Your task to perform on an android device: delete browsing data in the chrome app Image 0: 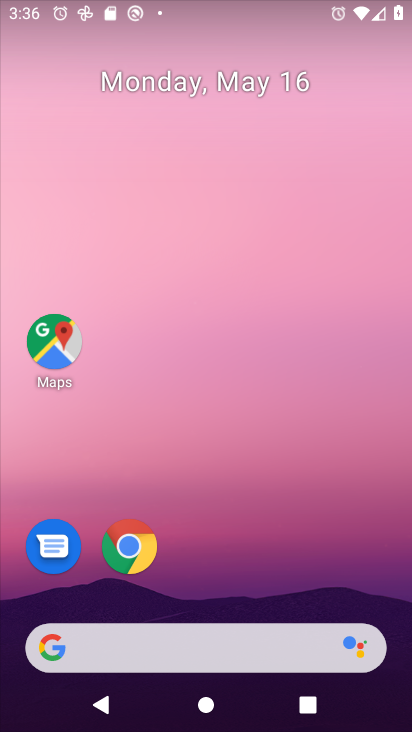
Step 0: drag from (374, 562) to (362, 197)
Your task to perform on an android device: delete browsing data in the chrome app Image 1: 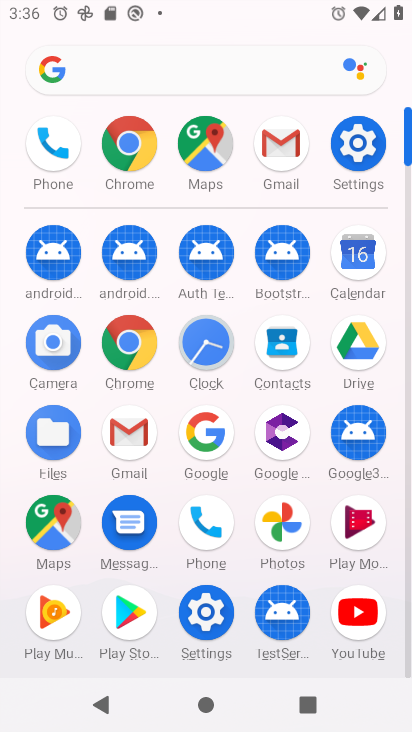
Step 1: click (144, 352)
Your task to perform on an android device: delete browsing data in the chrome app Image 2: 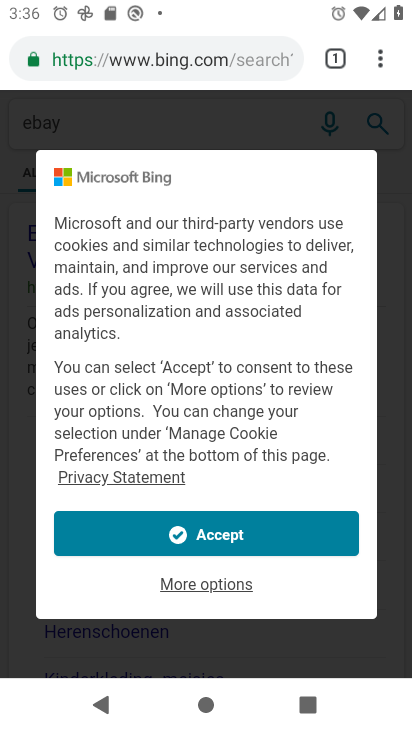
Step 2: click (381, 63)
Your task to perform on an android device: delete browsing data in the chrome app Image 3: 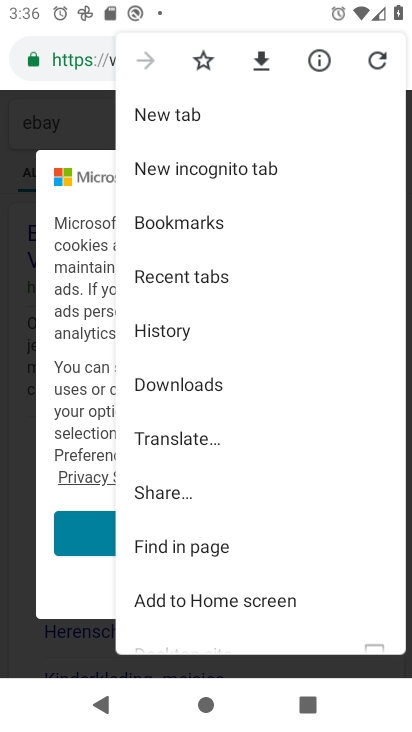
Step 3: drag from (308, 524) to (327, 368)
Your task to perform on an android device: delete browsing data in the chrome app Image 4: 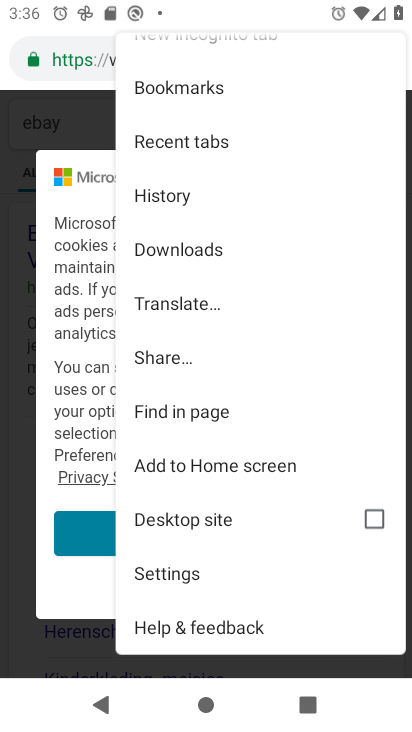
Step 4: drag from (284, 586) to (314, 400)
Your task to perform on an android device: delete browsing data in the chrome app Image 5: 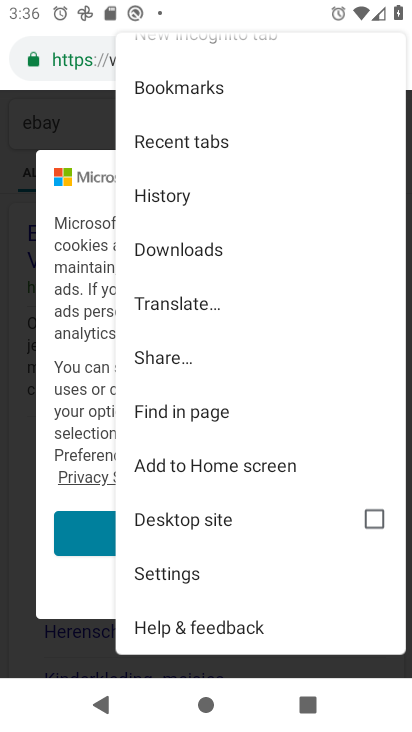
Step 5: click (182, 581)
Your task to perform on an android device: delete browsing data in the chrome app Image 6: 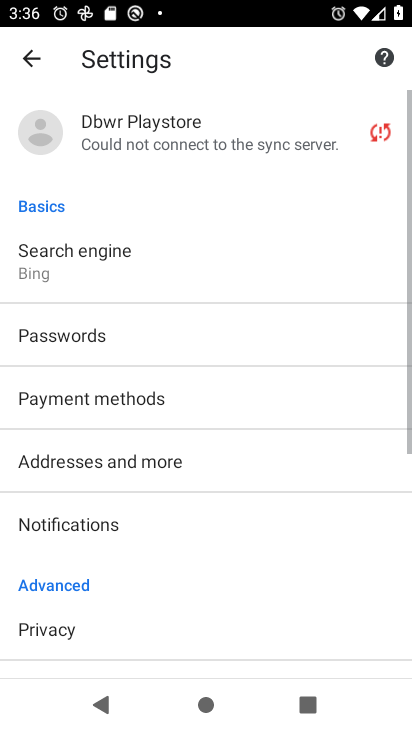
Step 6: drag from (290, 594) to (291, 453)
Your task to perform on an android device: delete browsing data in the chrome app Image 7: 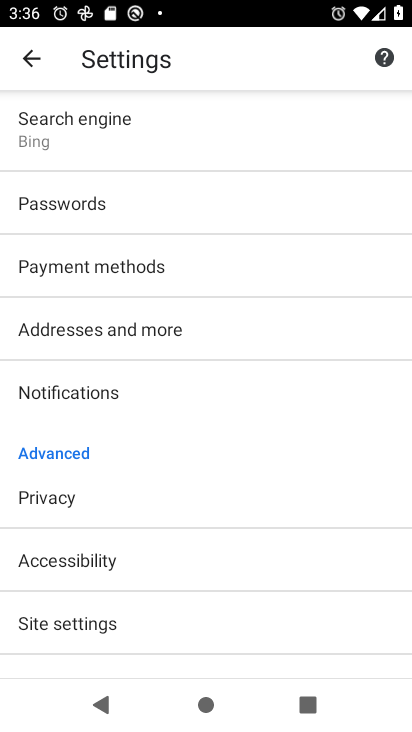
Step 7: drag from (280, 614) to (279, 448)
Your task to perform on an android device: delete browsing data in the chrome app Image 8: 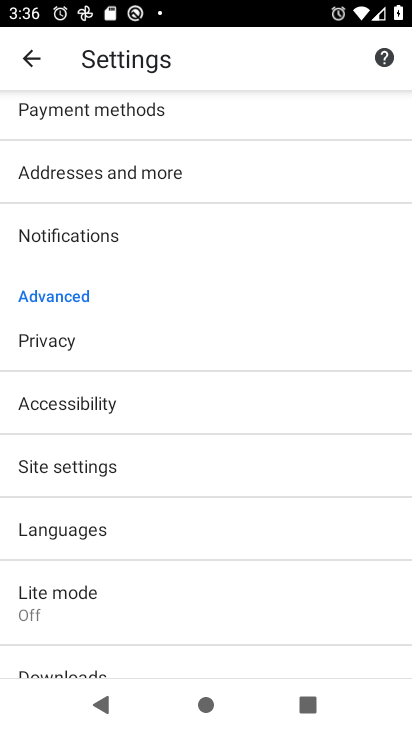
Step 8: drag from (272, 596) to (281, 409)
Your task to perform on an android device: delete browsing data in the chrome app Image 9: 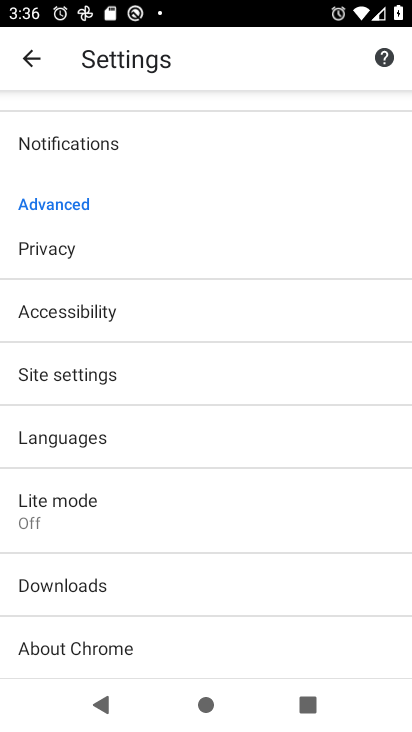
Step 9: drag from (267, 497) to (263, 411)
Your task to perform on an android device: delete browsing data in the chrome app Image 10: 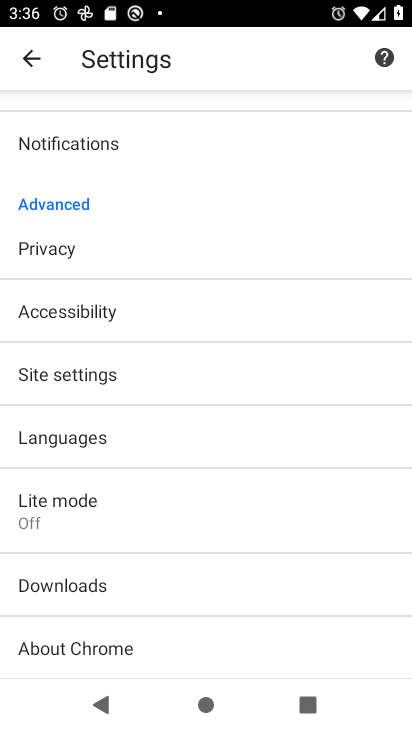
Step 10: drag from (290, 216) to (276, 382)
Your task to perform on an android device: delete browsing data in the chrome app Image 11: 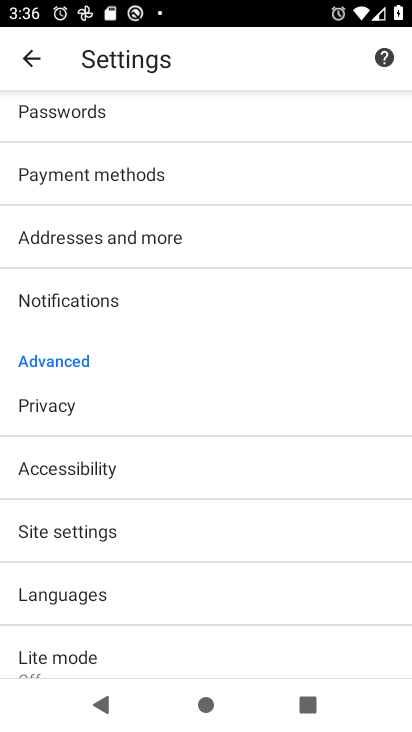
Step 11: click (174, 407)
Your task to perform on an android device: delete browsing data in the chrome app Image 12: 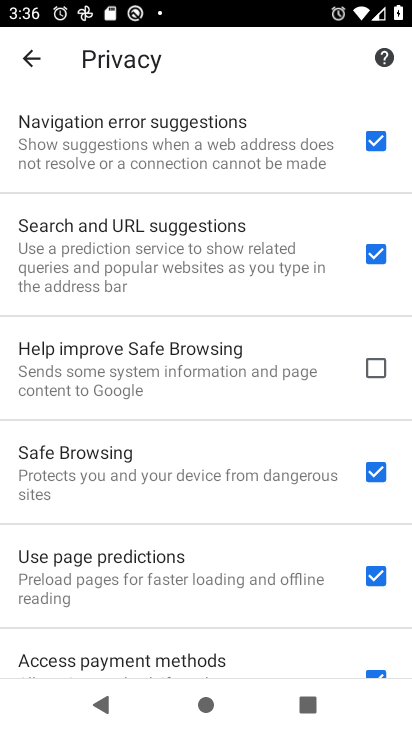
Step 12: drag from (249, 619) to (283, 392)
Your task to perform on an android device: delete browsing data in the chrome app Image 13: 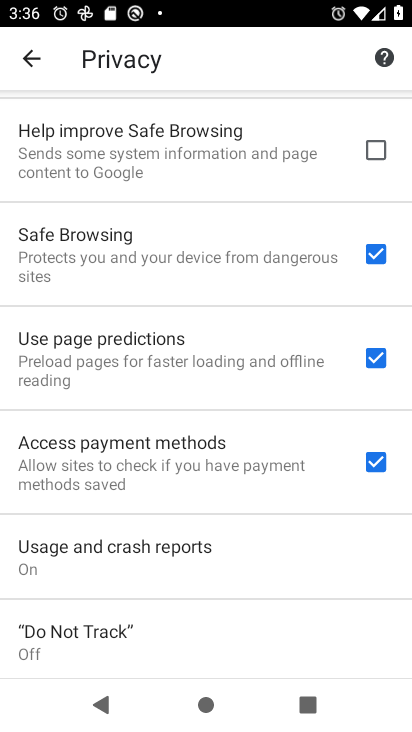
Step 13: drag from (261, 630) to (277, 434)
Your task to perform on an android device: delete browsing data in the chrome app Image 14: 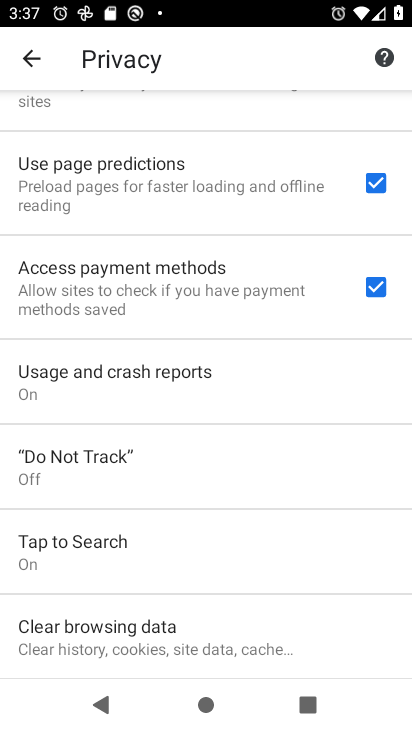
Step 14: click (165, 636)
Your task to perform on an android device: delete browsing data in the chrome app Image 15: 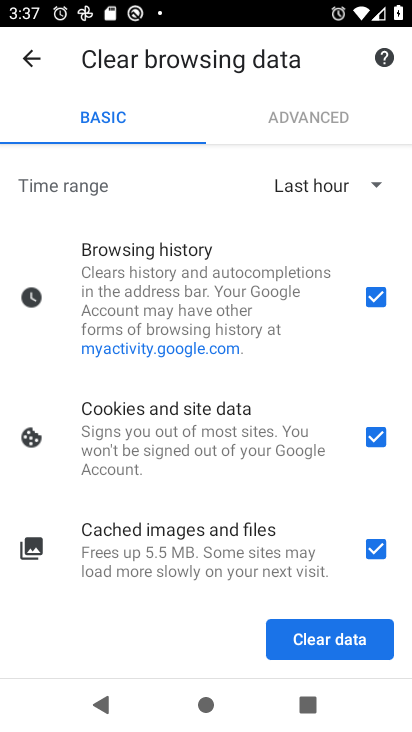
Step 15: click (336, 636)
Your task to perform on an android device: delete browsing data in the chrome app Image 16: 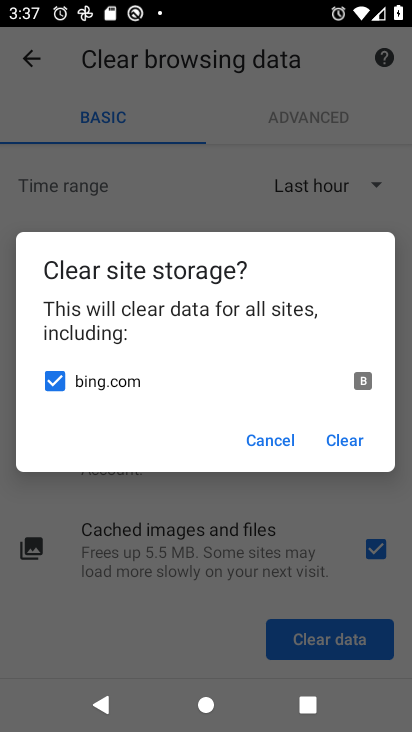
Step 16: click (332, 438)
Your task to perform on an android device: delete browsing data in the chrome app Image 17: 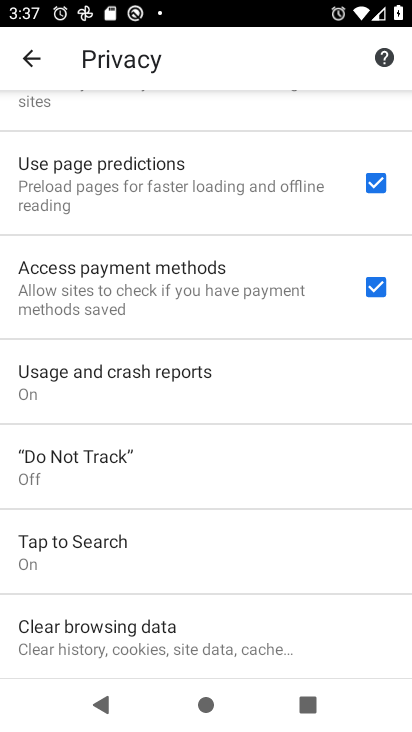
Step 17: task complete